Your task to perform on an android device: find photos in the google photos app Image 0: 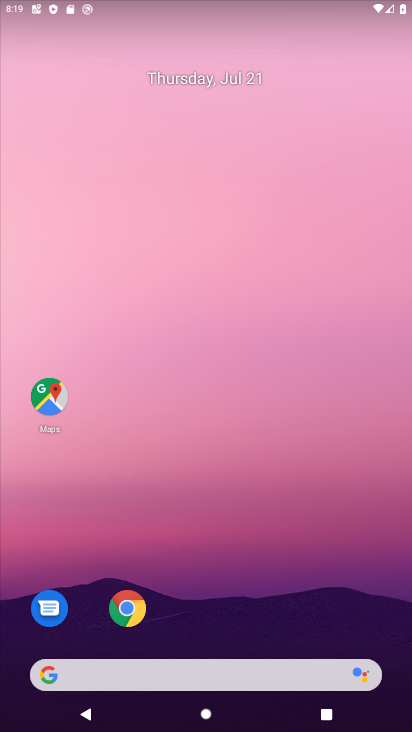
Step 0: drag from (19, 695) to (297, 0)
Your task to perform on an android device: find photos in the google photos app Image 1: 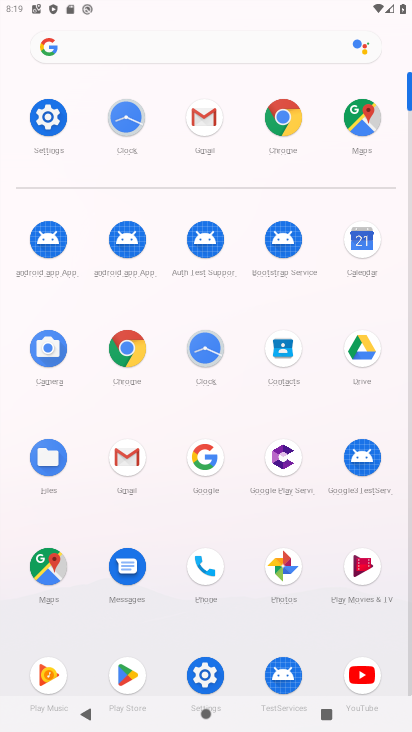
Step 1: click (284, 569)
Your task to perform on an android device: find photos in the google photos app Image 2: 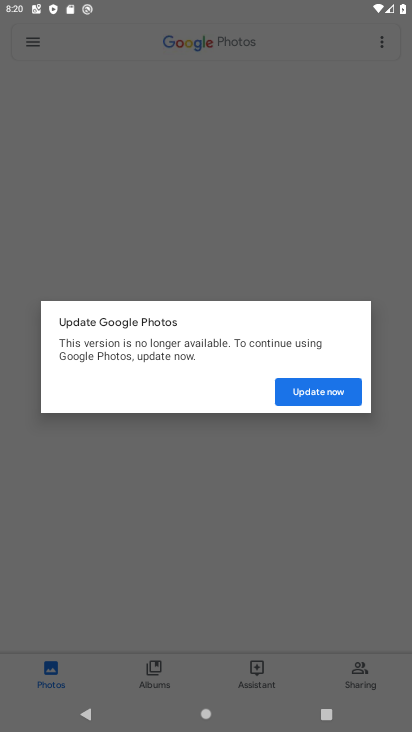
Step 2: click (329, 392)
Your task to perform on an android device: find photos in the google photos app Image 3: 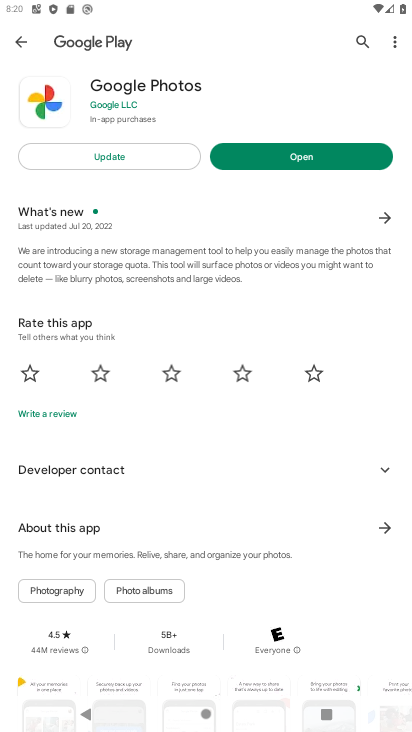
Step 3: click (308, 152)
Your task to perform on an android device: find photos in the google photos app Image 4: 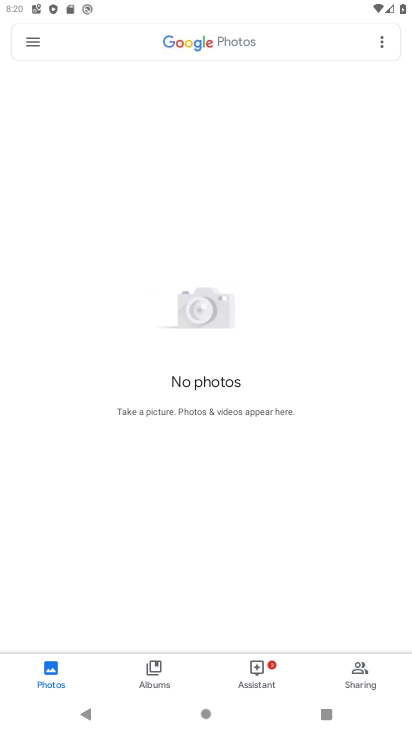
Step 4: task complete